Your task to perform on an android device: Open ESPN.com Image 0: 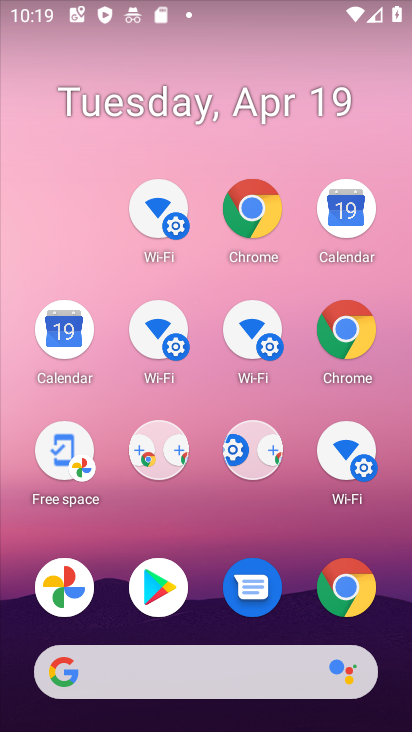
Step 0: click (347, 602)
Your task to perform on an android device: Open ESPN.com Image 1: 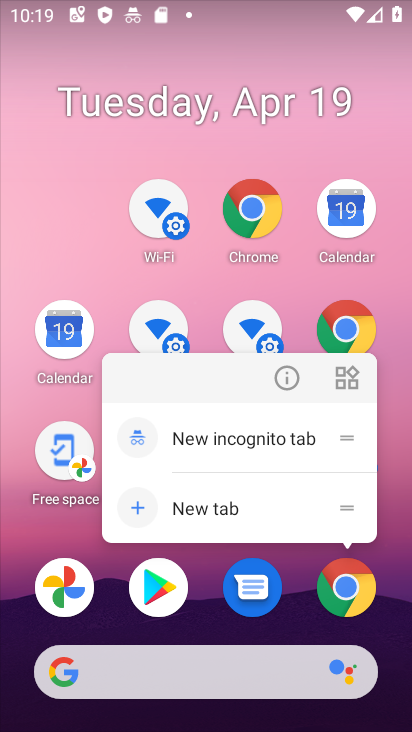
Step 1: click (350, 597)
Your task to perform on an android device: Open ESPN.com Image 2: 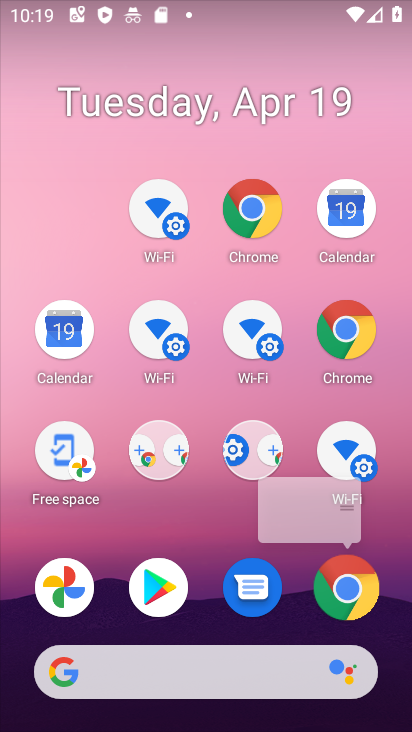
Step 2: click (350, 597)
Your task to perform on an android device: Open ESPN.com Image 3: 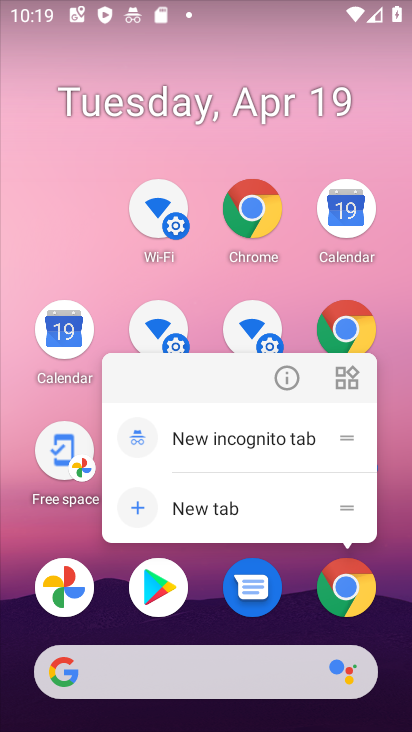
Step 3: click (352, 582)
Your task to perform on an android device: Open ESPN.com Image 4: 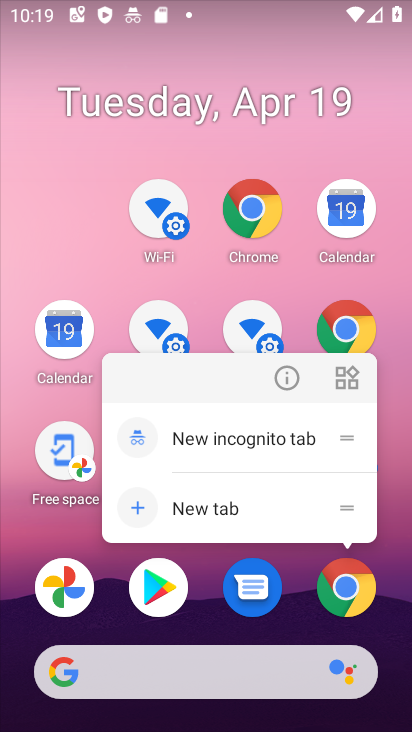
Step 4: click (352, 582)
Your task to perform on an android device: Open ESPN.com Image 5: 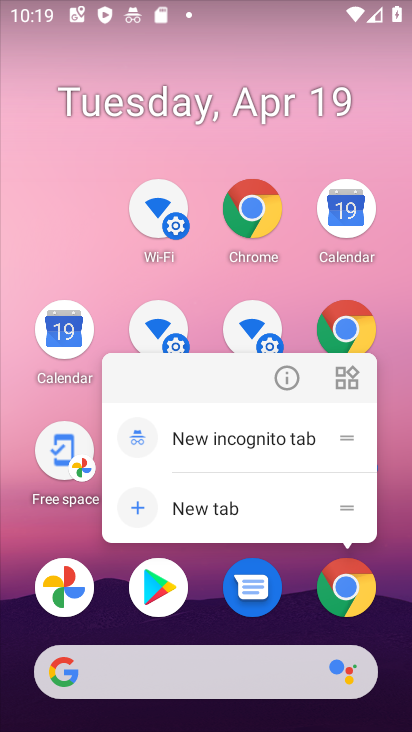
Step 5: click (352, 582)
Your task to perform on an android device: Open ESPN.com Image 6: 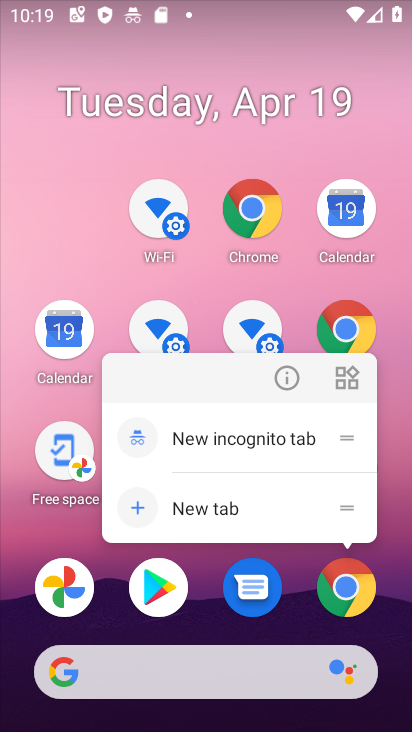
Step 6: click (352, 582)
Your task to perform on an android device: Open ESPN.com Image 7: 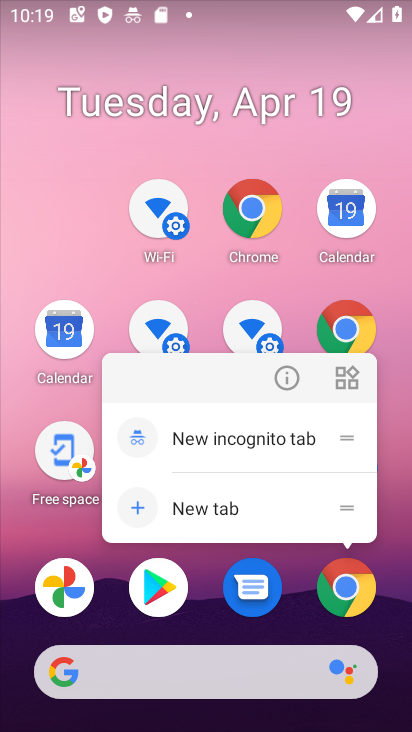
Step 7: click (352, 582)
Your task to perform on an android device: Open ESPN.com Image 8: 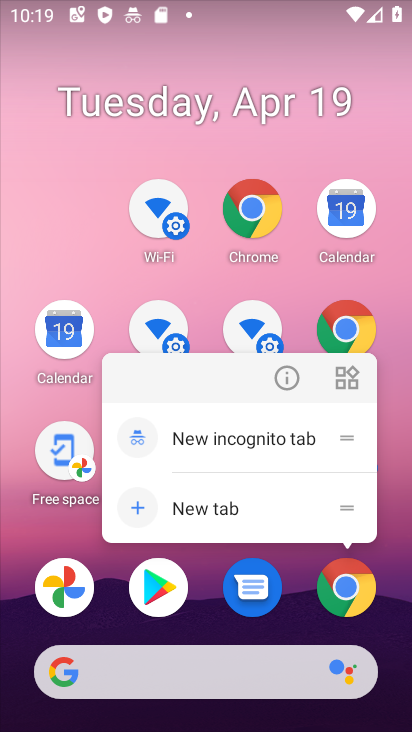
Step 8: click (123, 246)
Your task to perform on an android device: Open ESPN.com Image 9: 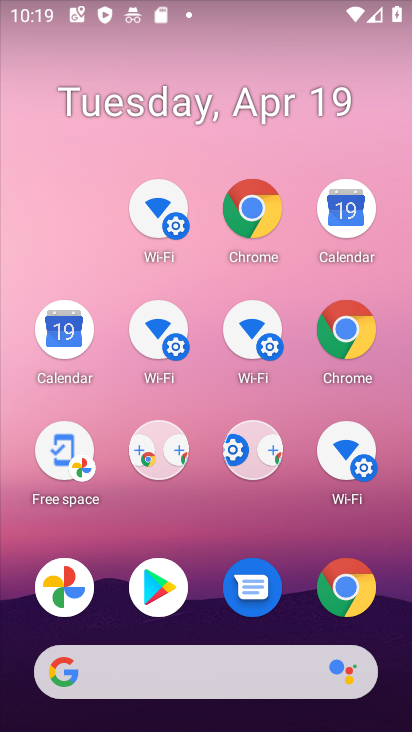
Step 9: drag from (304, 605) to (114, 124)
Your task to perform on an android device: Open ESPN.com Image 10: 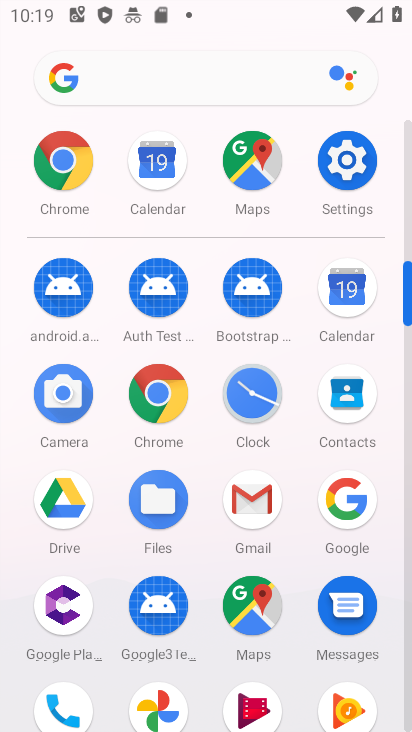
Step 10: click (57, 169)
Your task to perform on an android device: Open ESPN.com Image 11: 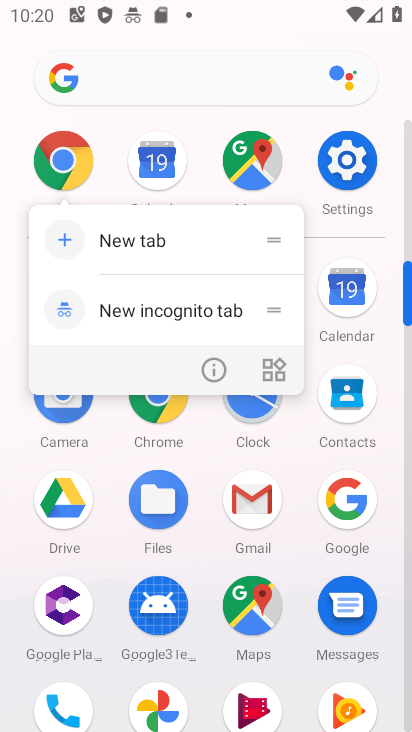
Step 11: click (61, 169)
Your task to perform on an android device: Open ESPN.com Image 12: 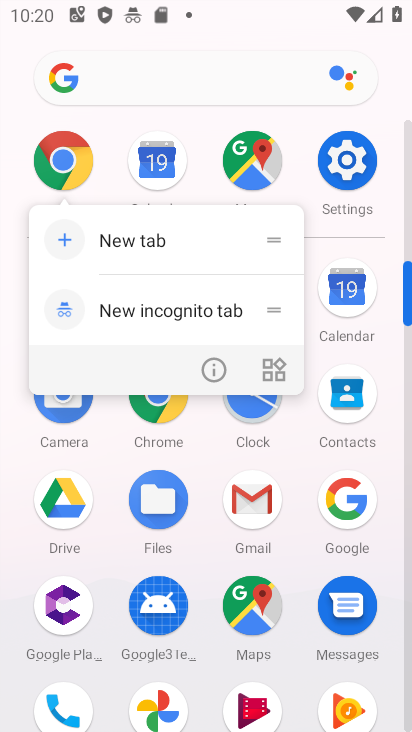
Step 12: click (103, 229)
Your task to perform on an android device: Open ESPN.com Image 13: 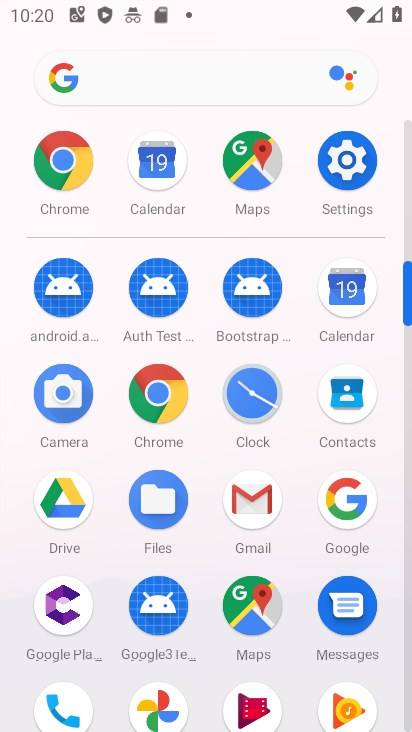
Step 13: click (107, 236)
Your task to perform on an android device: Open ESPN.com Image 14: 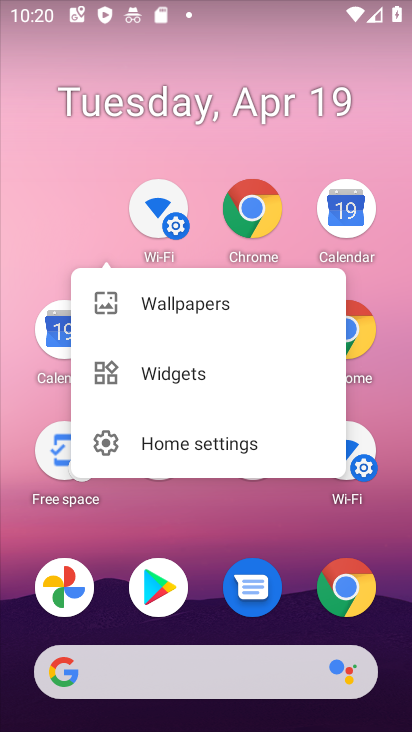
Step 14: click (87, 197)
Your task to perform on an android device: Open ESPN.com Image 15: 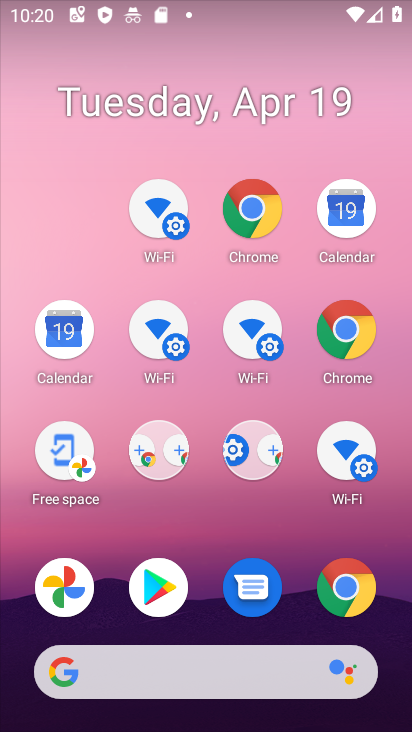
Step 15: click (331, 567)
Your task to perform on an android device: Open ESPN.com Image 16: 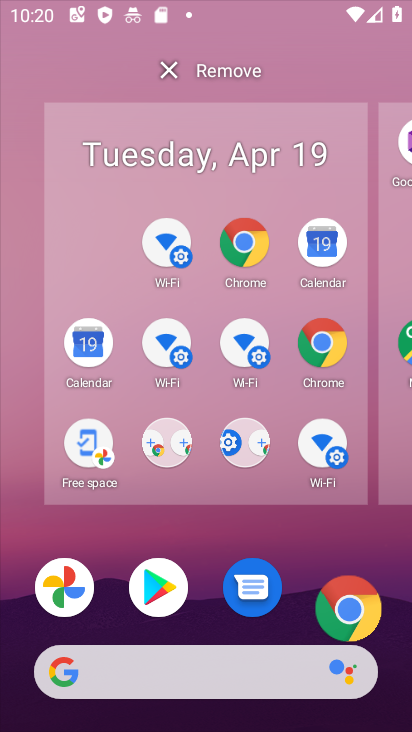
Step 16: click (333, 588)
Your task to perform on an android device: Open ESPN.com Image 17: 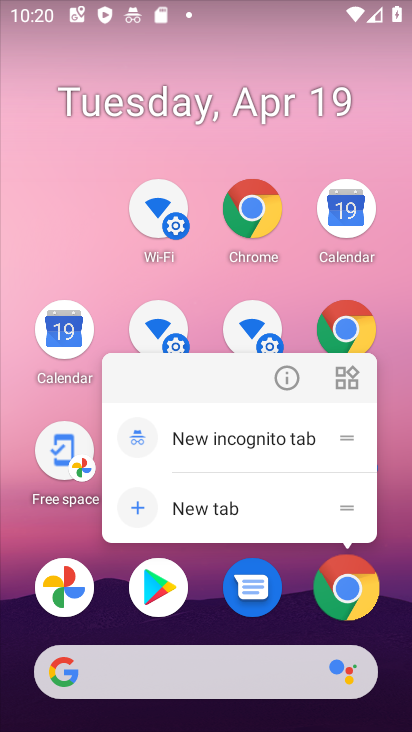
Step 17: click (335, 601)
Your task to perform on an android device: Open ESPN.com Image 18: 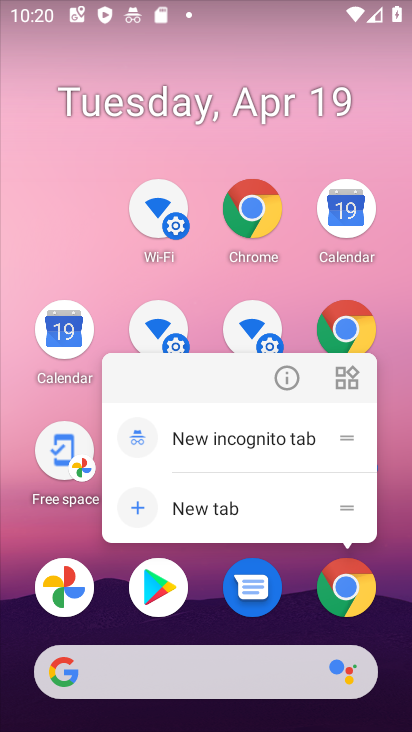
Step 18: click (338, 593)
Your task to perform on an android device: Open ESPN.com Image 19: 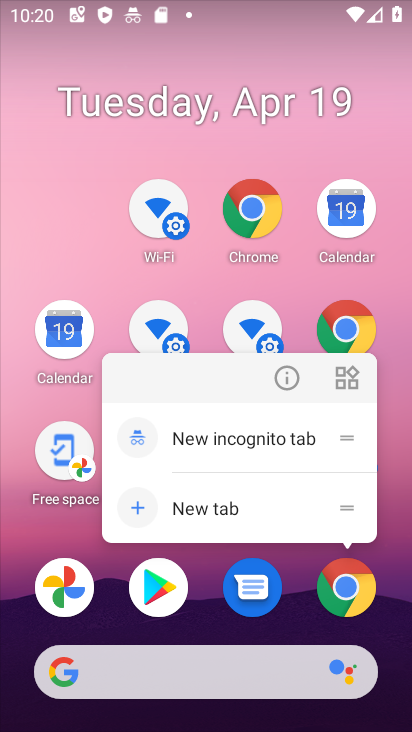
Step 19: click (352, 589)
Your task to perform on an android device: Open ESPN.com Image 20: 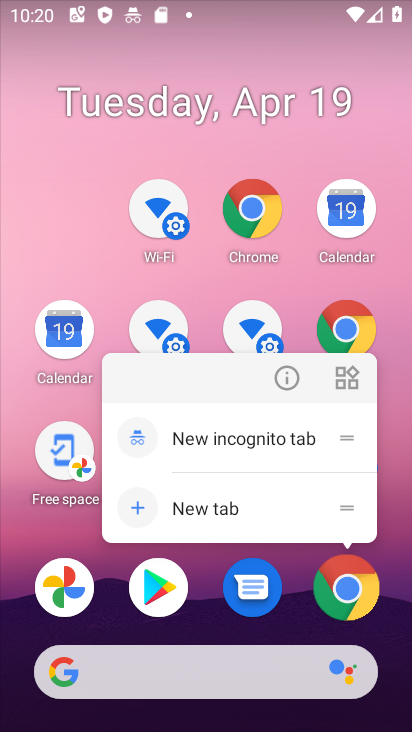
Step 20: click (357, 584)
Your task to perform on an android device: Open ESPN.com Image 21: 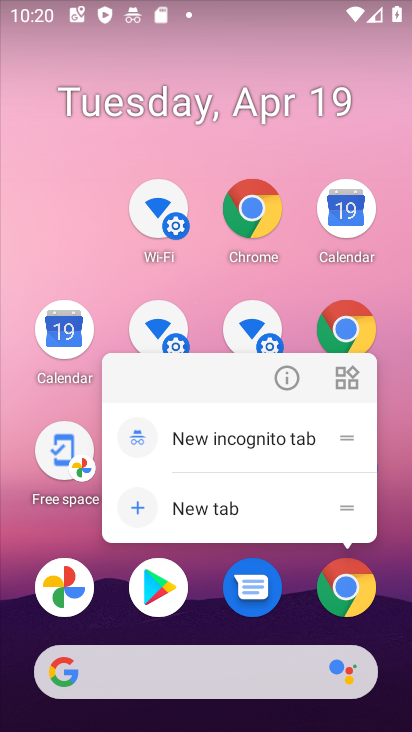
Step 21: click (358, 585)
Your task to perform on an android device: Open ESPN.com Image 22: 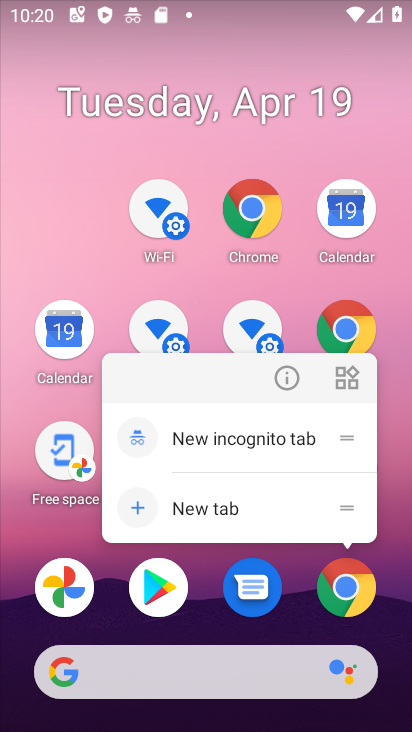
Step 22: click (359, 585)
Your task to perform on an android device: Open ESPN.com Image 23: 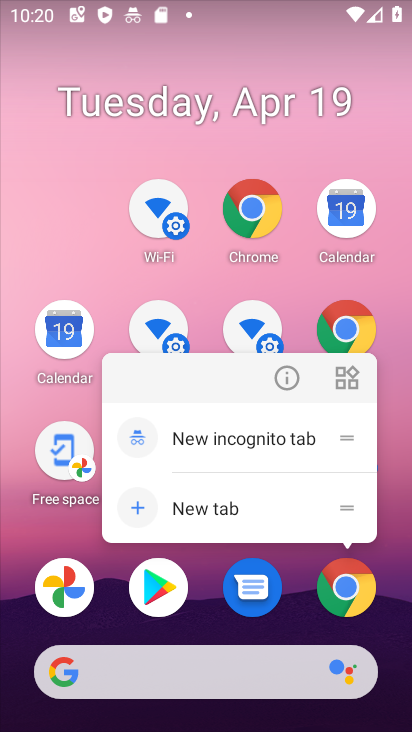
Step 23: click (361, 593)
Your task to perform on an android device: Open ESPN.com Image 24: 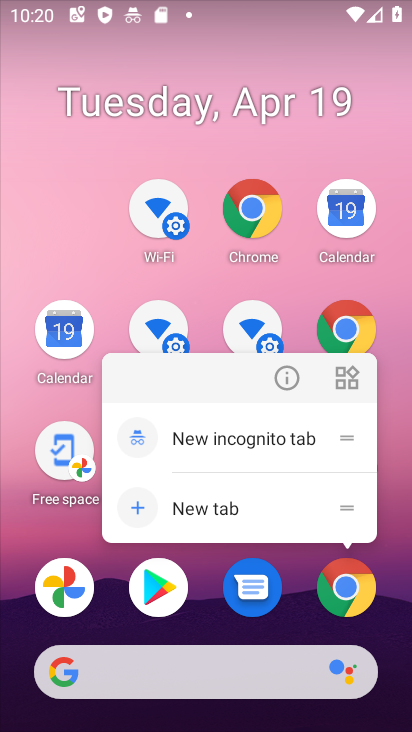
Step 24: click (361, 593)
Your task to perform on an android device: Open ESPN.com Image 25: 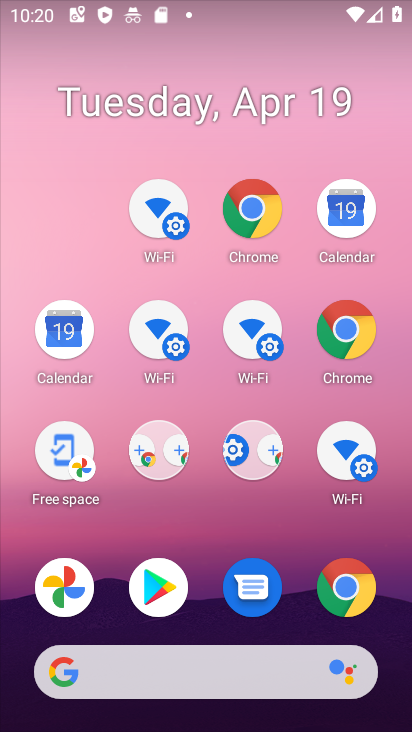
Step 25: click (354, 594)
Your task to perform on an android device: Open ESPN.com Image 26: 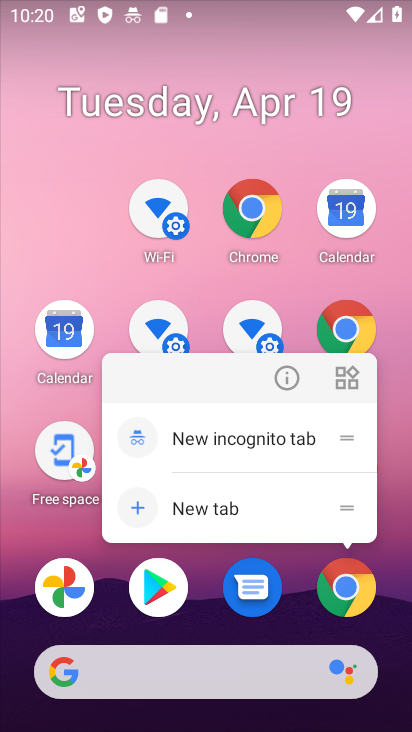
Step 26: click (354, 594)
Your task to perform on an android device: Open ESPN.com Image 27: 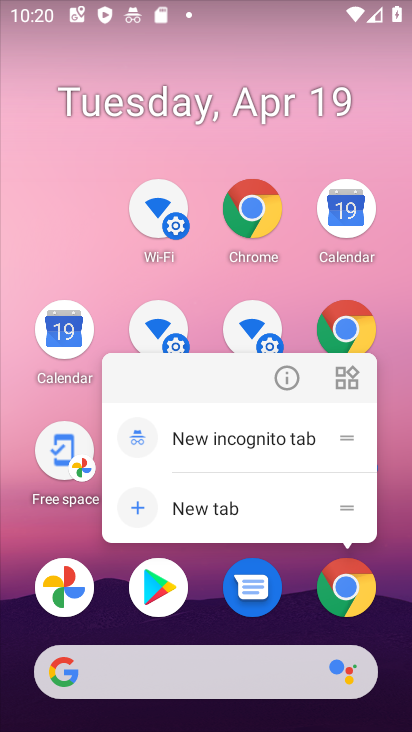
Step 27: click (350, 583)
Your task to perform on an android device: Open ESPN.com Image 28: 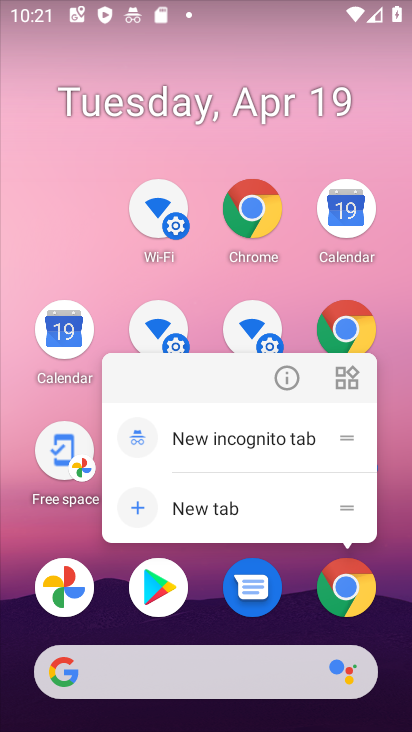
Step 28: drag from (168, 505) to (182, 445)
Your task to perform on an android device: Open ESPN.com Image 29: 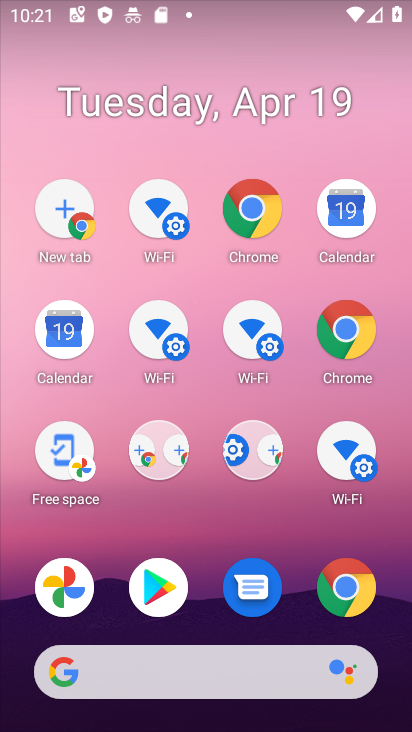
Step 29: click (356, 591)
Your task to perform on an android device: Open ESPN.com Image 30: 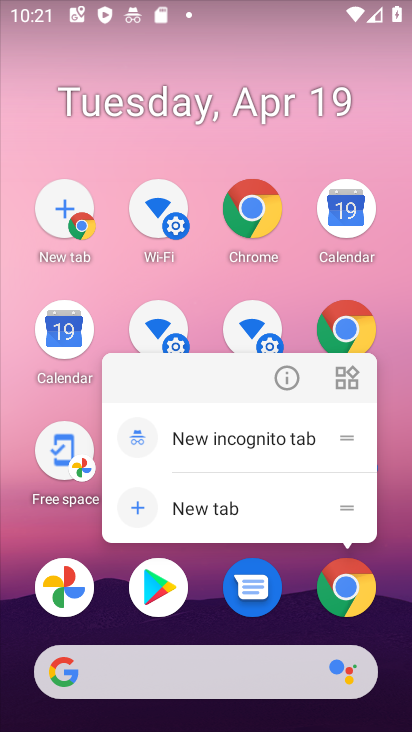
Step 30: click (355, 589)
Your task to perform on an android device: Open ESPN.com Image 31: 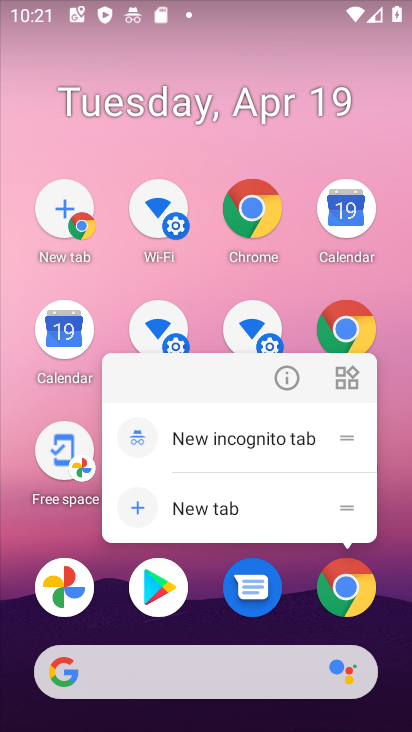
Step 31: click (355, 589)
Your task to perform on an android device: Open ESPN.com Image 32: 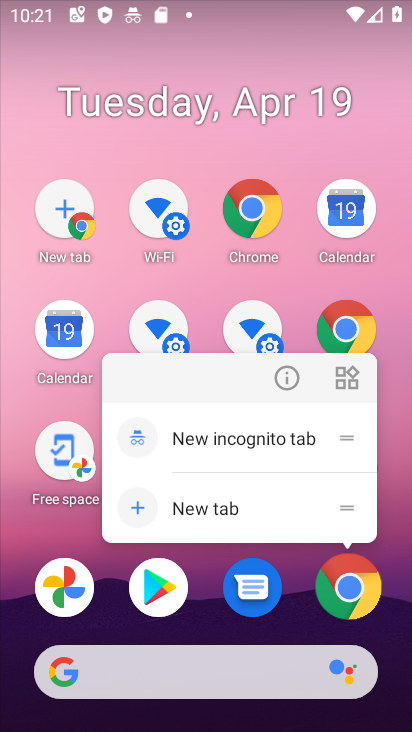
Step 32: click (356, 581)
Your task to perform on an android device: Open ESPN.com Image 33: 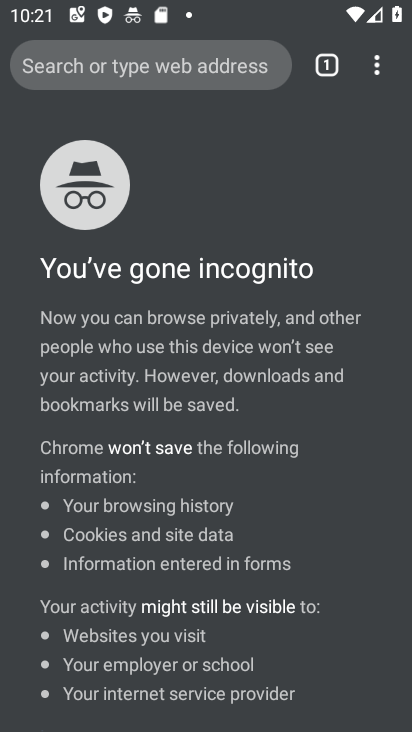
Step 33: click (383, 70)
Your task to perform on an android device: Open ESPN.com Image 34: 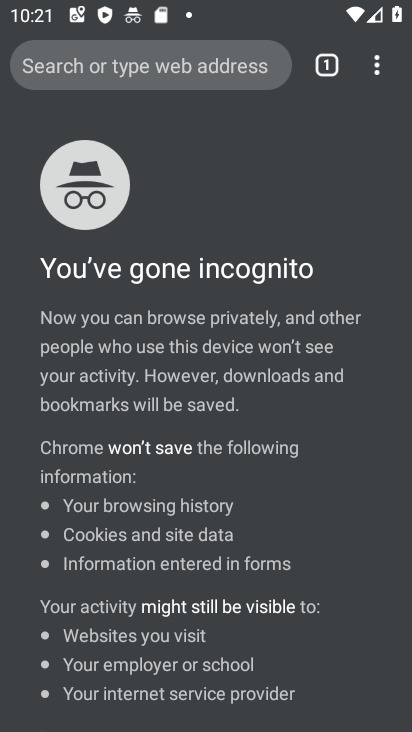
Step 34: click (378, 57)
Your task to perform on an android device: Open ESPN.com Image 35: 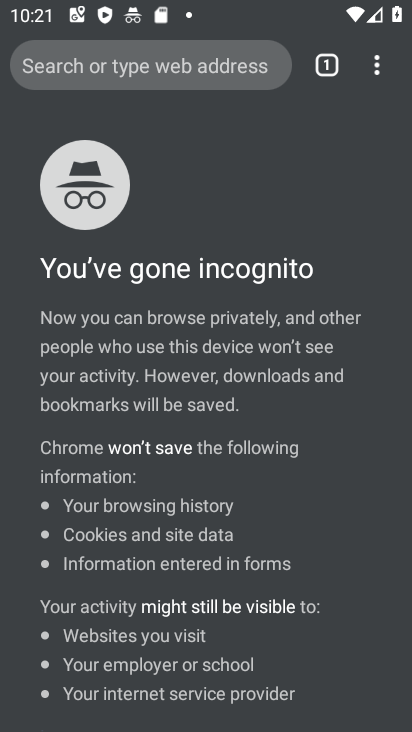
Step 35: click (382, 71)
Your task to perform on an android device: Open ESPN.com Image 36: 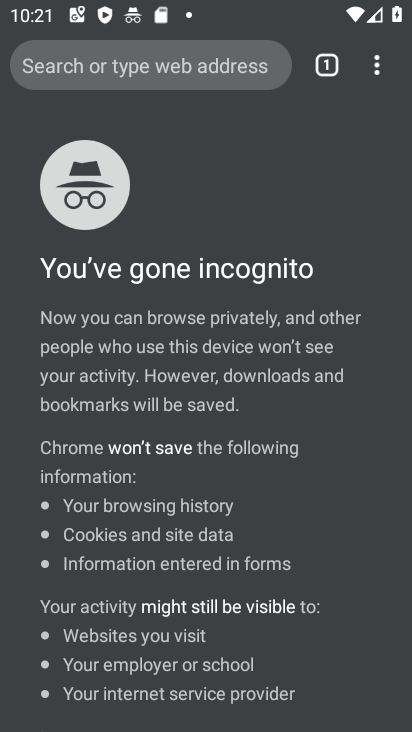
Step 36: click (377, 71)
Your task to perform on an android device: Open ESPN.com Image 37: 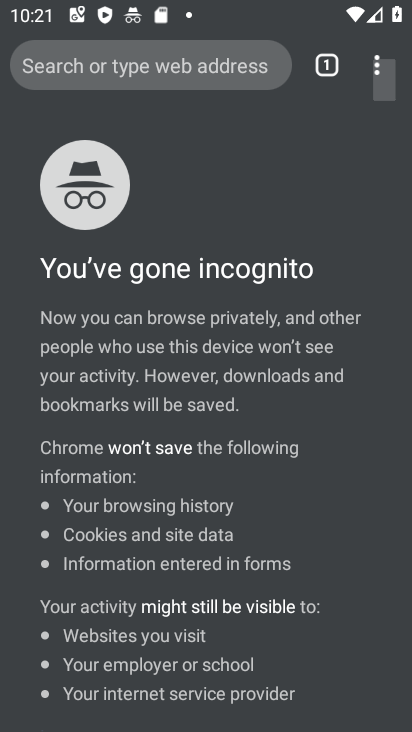
Step 37: click (377, 71)
Your task to perform on an android device: Open ESPN.com Image 38: 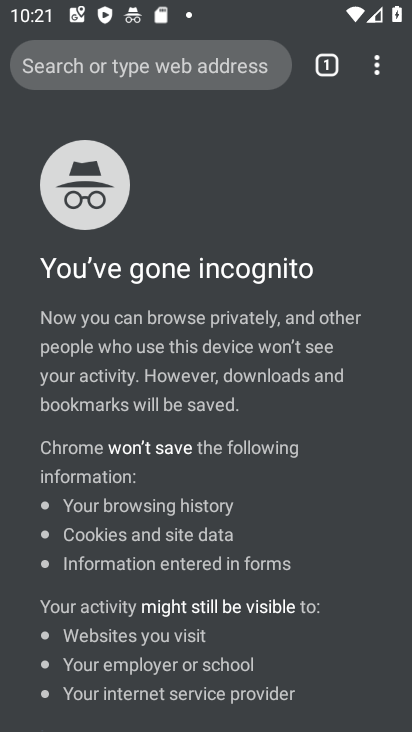
Step 38: drag from (373, 73) to (124, 209)
Your task to perform on an android device: Open ESPN.com Image 39: 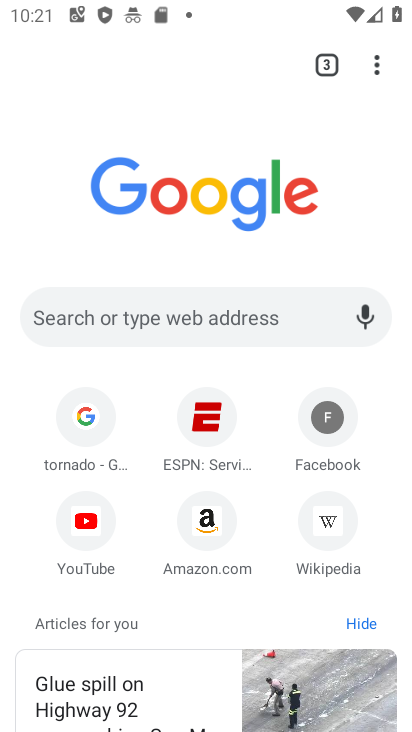
Step 39: click (87, 319)
Your task to perform on an android device: Open ESPN.com Image 40: 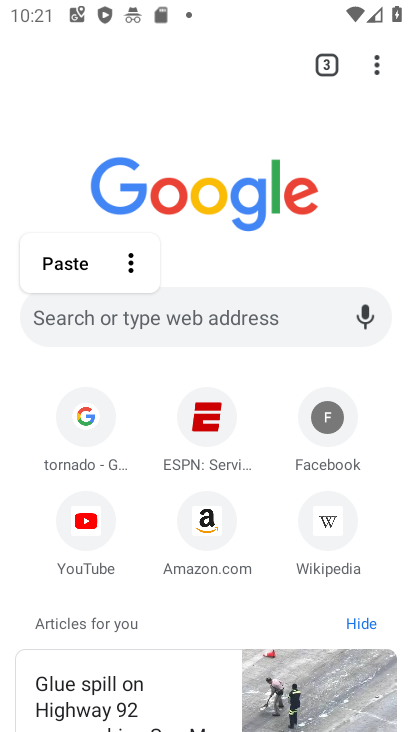
Step 40: click (105, 306)
Your task to perform on an android device: Open ESPN.com Image 41: 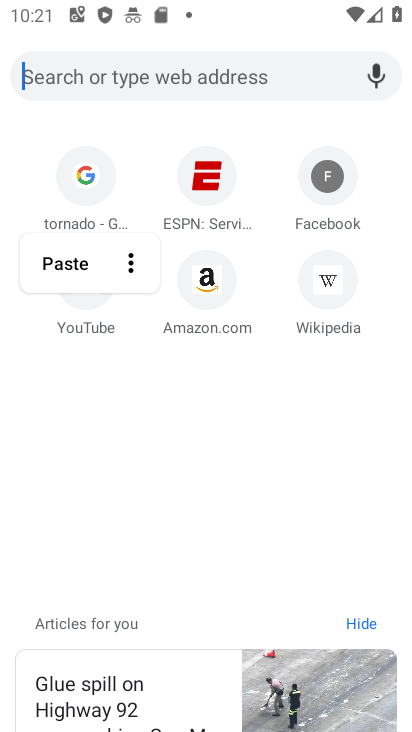
Step 41: click (105, 306)
Your task to perform on an android device: Open ESPN.com Image 42: 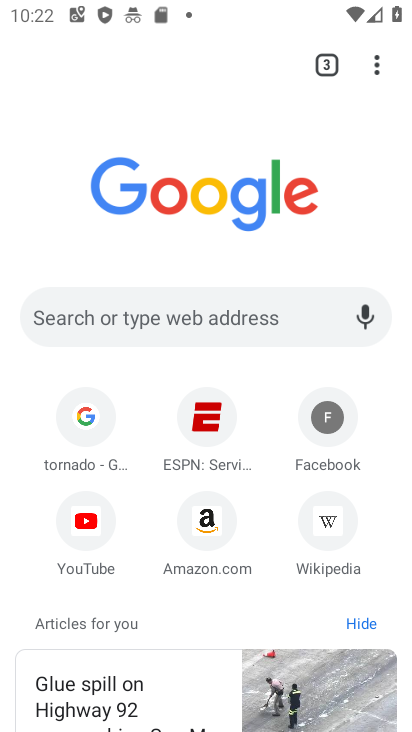
Step 42: click (78, 318)
Your task to perform on an android device: Open ESPN.com Image 43: 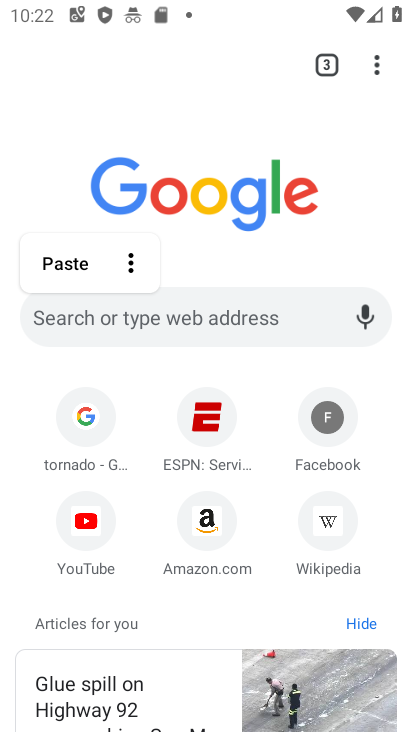
Step 43: click (102, 336)
Your task to perform on an android device: Open ESPN.com Image 44: 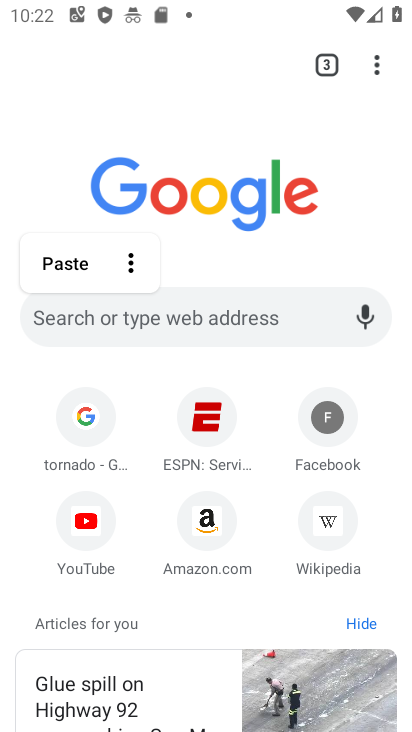
Step 44: click (102, 331)
Your task to perform on an android device: Open ESPN.com Image 45: 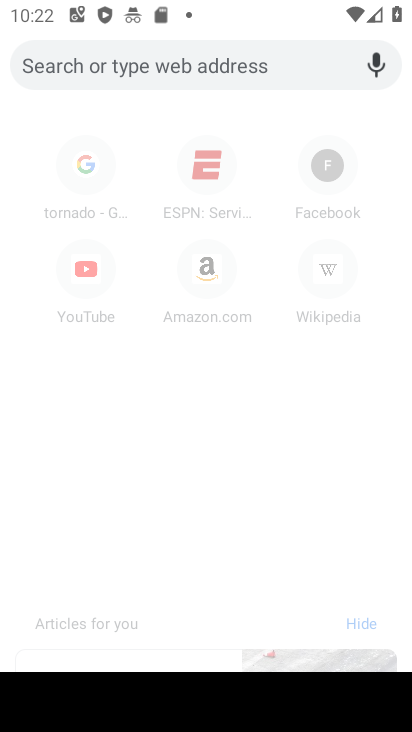
Step 45: click (213, 170)
Your task to perform on an android device: Open ESPN.com Image 46: 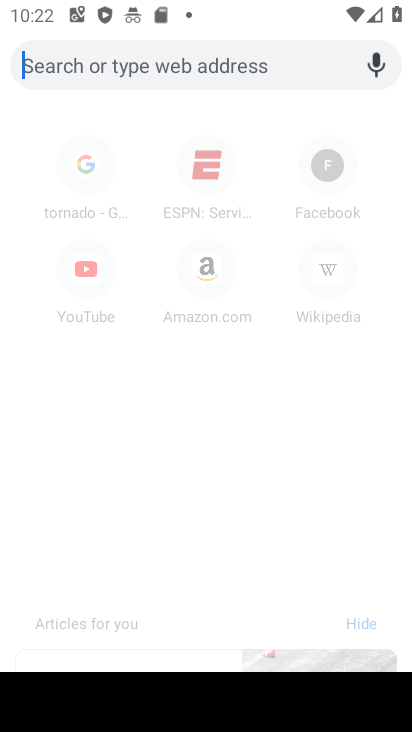
Step 46: click (215, 170)
Your task to perform on an android device: Open ESPN.com Image 47: 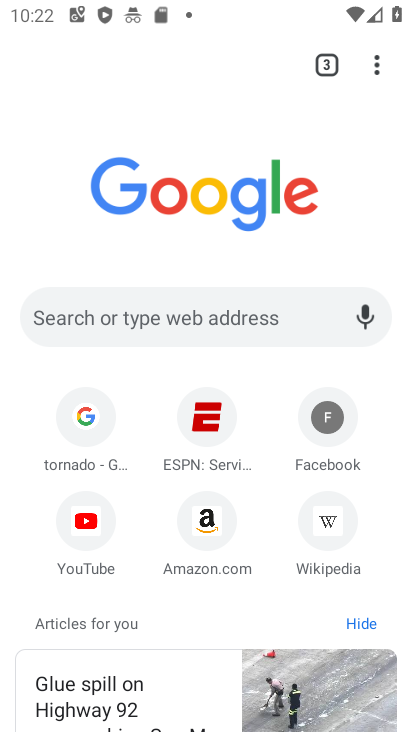
Step 47: click (212, 420)
Your task to perform on an android device: Open ESPN.com Image 48: 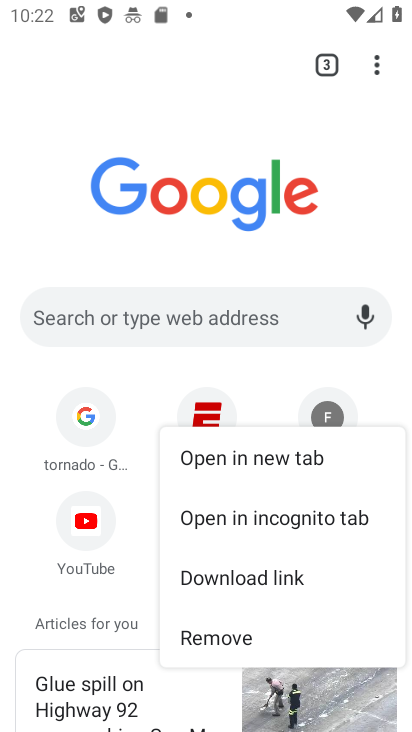
Step 48: click (222, 417)
Your task to perform on an android device: Open ESPN.com Image 49: 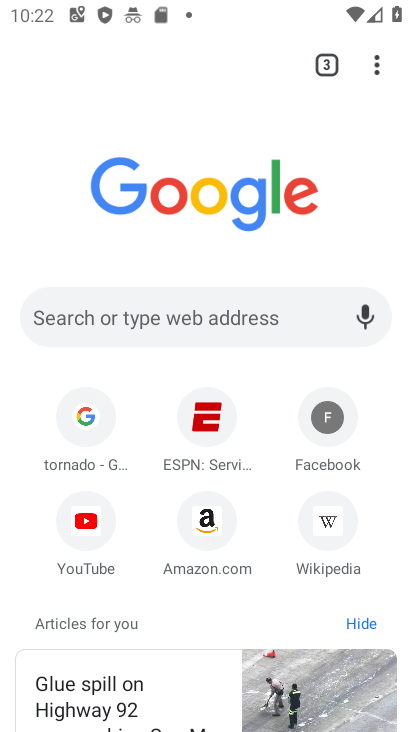
Step 49: click (214, 420)
Your task to perform on an android device: Open ESPN.com Image 50: 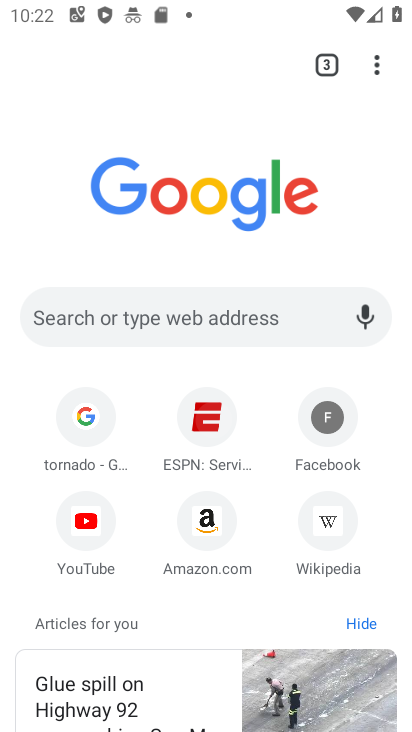
Step 50: click (222, 431)
Your task to perform on an android device: Open ESPN.com Image 51: 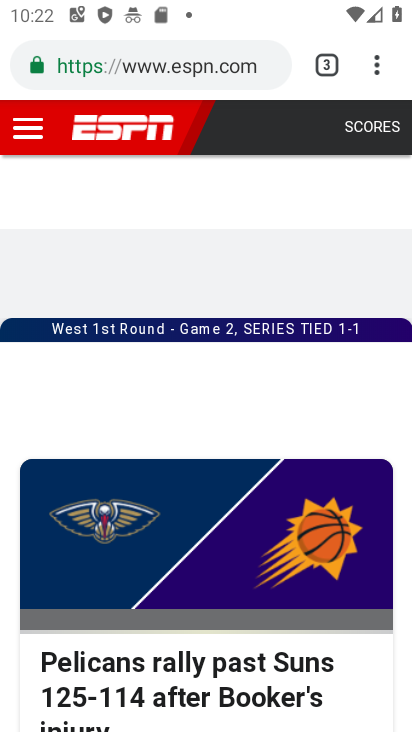
Step 51: task complete